Your task to perform on an android device: Go to Wikipedia Image 0: 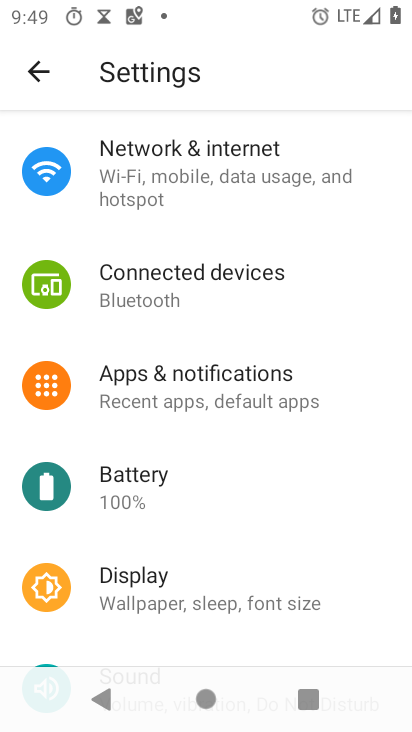
Step 0: press home button
Your task to perform on an android device: Go to Wikipedia Image 1: 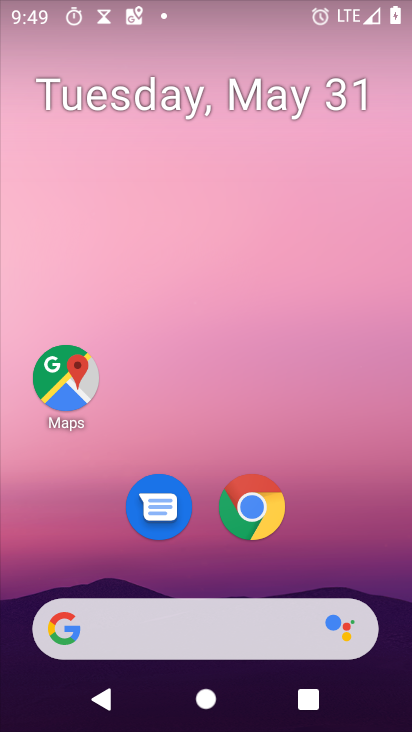
Step 1: click (265, 503)
Your task to perform on an android device: Go to Wikipedia Image 2: 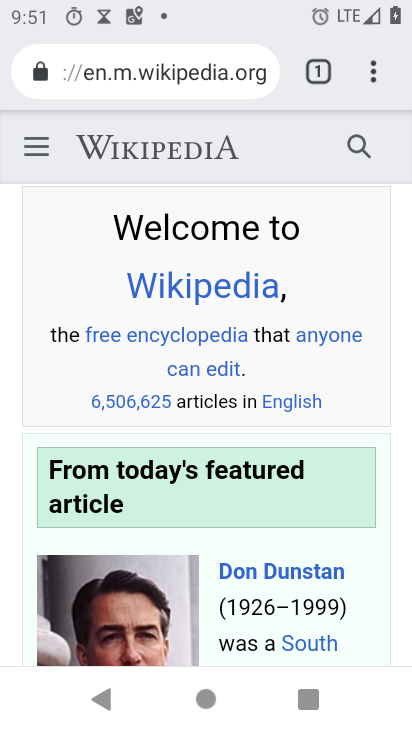
Step 2: task complete